Your task to perform on an android device: What's the weather going to be this weekend? Image 0: 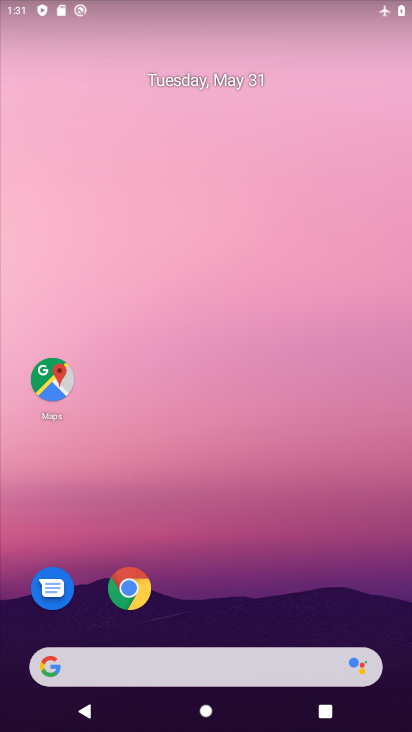
Step 0: click (239, 671)
Your task to perform on an android device: What's the weather going to be this weekend? Image 1: 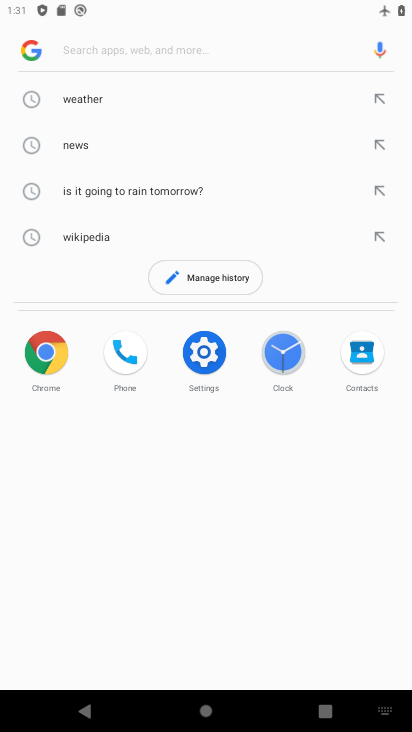
Step 1: click (124, 103)
Your task to perform on an android device: What's the weather going to be this weekend? Image 2: 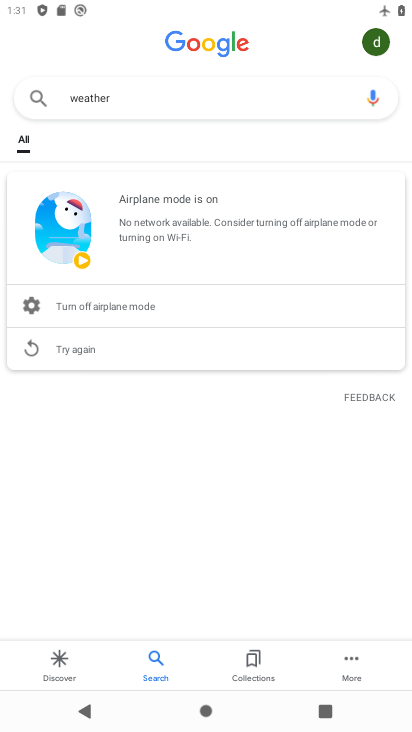
Step 2: task complete